Your task to perform on an android device: open app "PlayWell" (install if not already installed) Image 0: 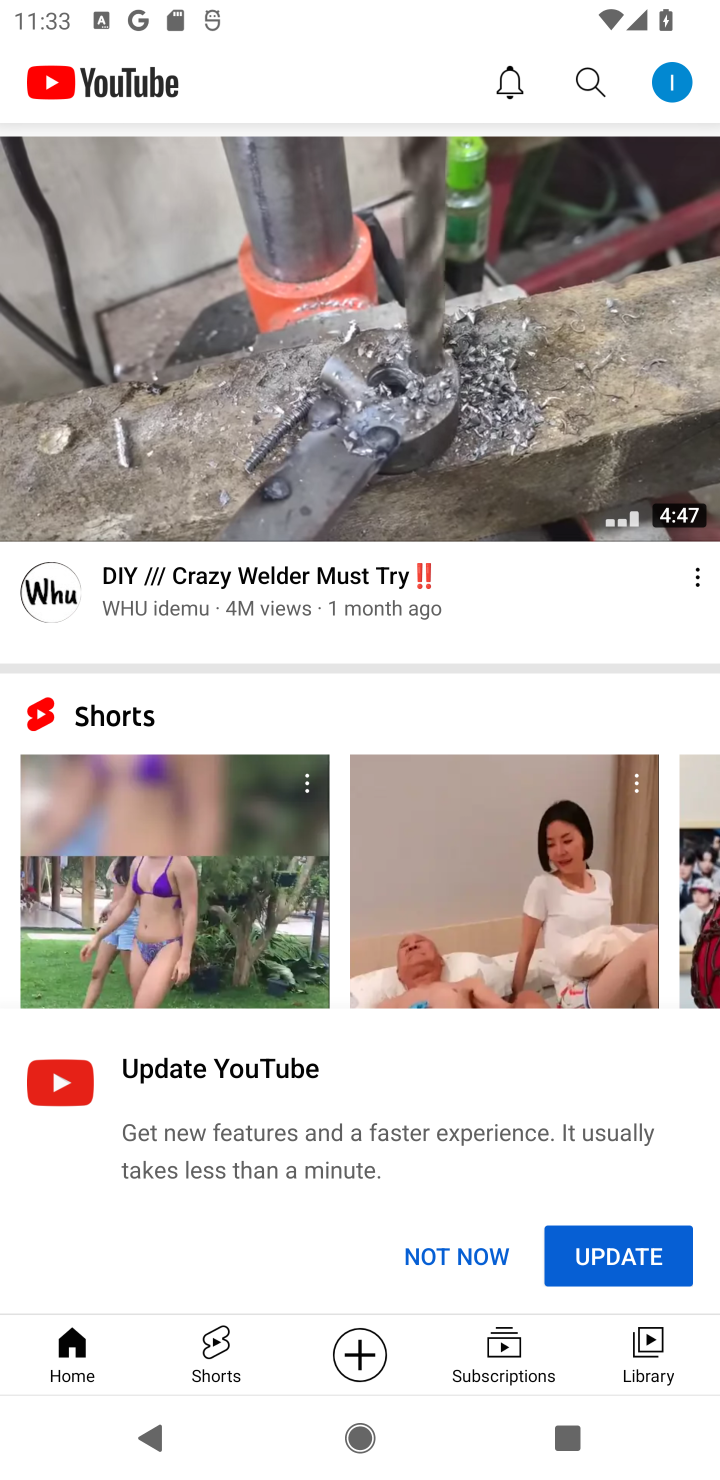
Step 0: press back button
Your task to perform on an android device: open app "PlayWell" (install if not already installed) Image 1: 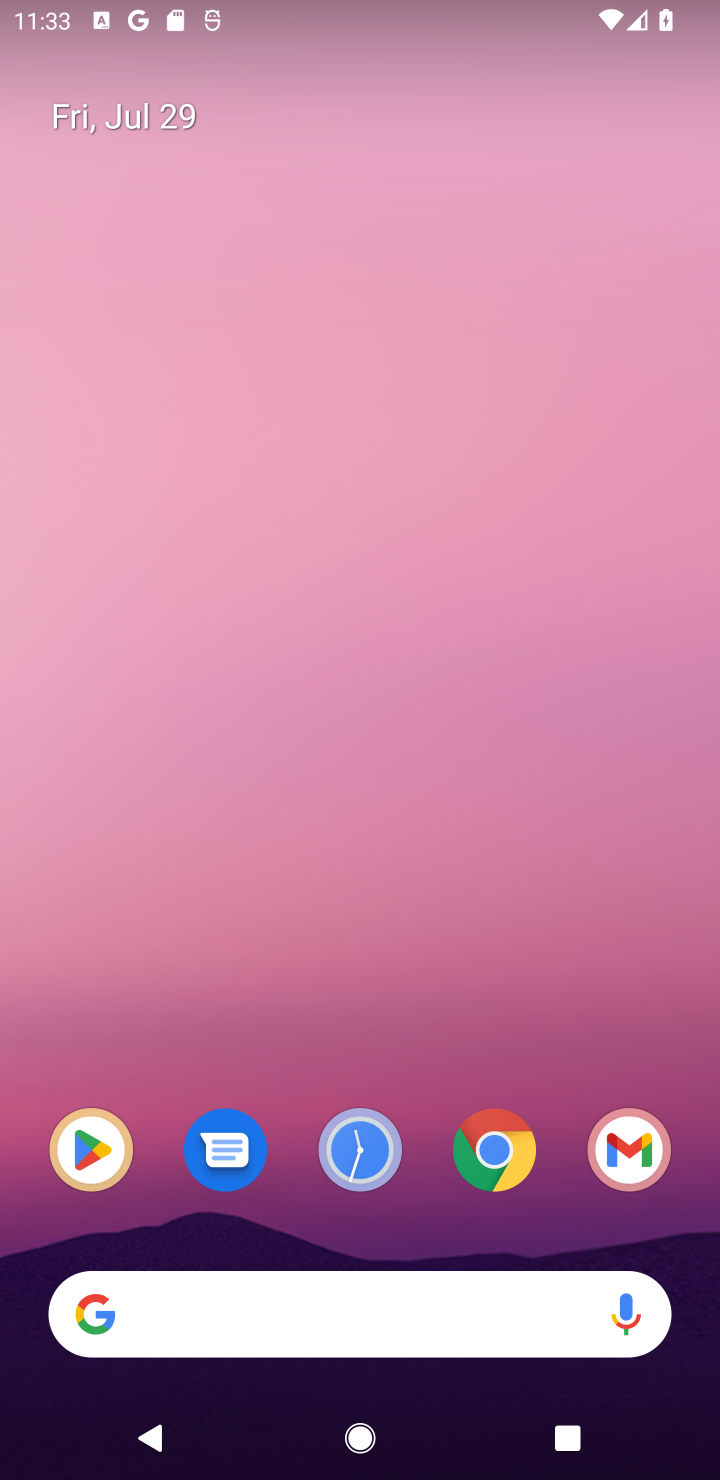
Step 1: click (110, 1154)
Your task to perform on an android device: open app "PlayWell" (install if not already installed) Image 2: 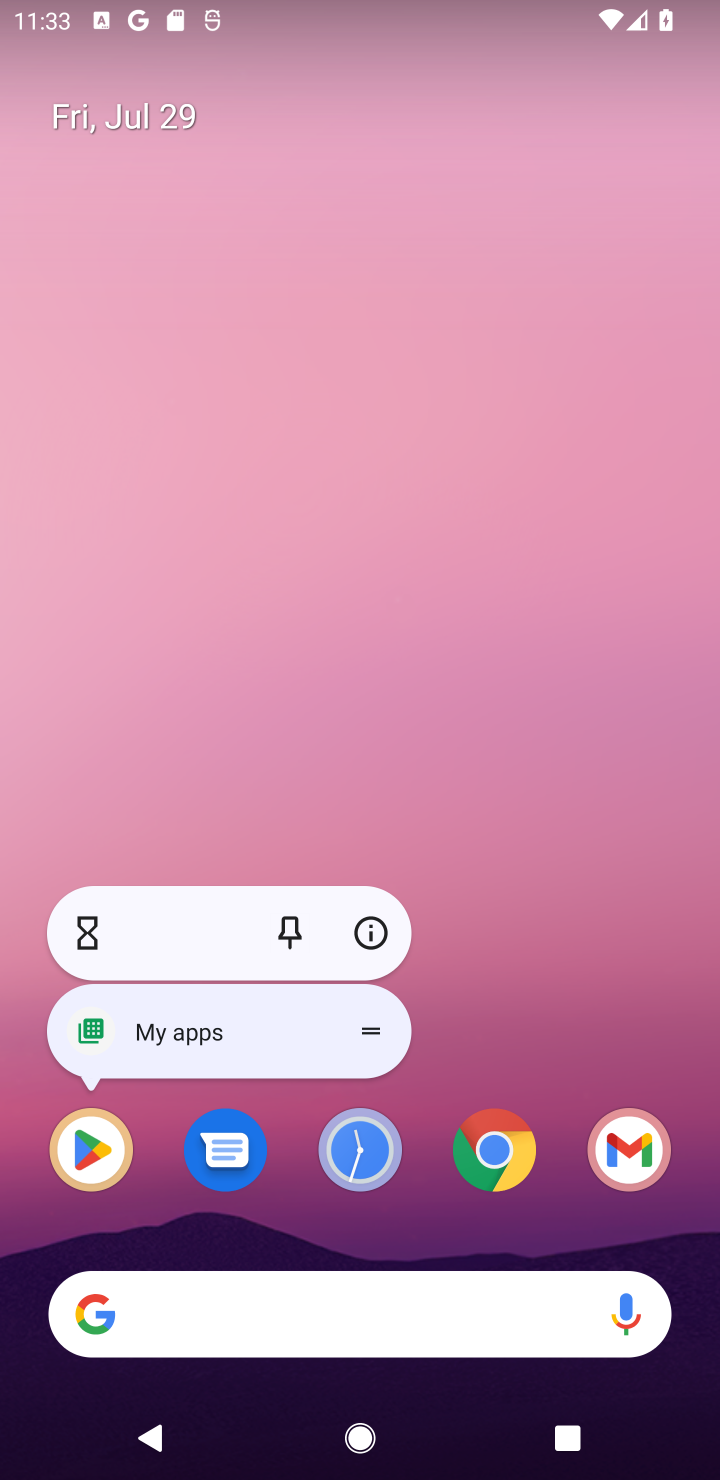
Step 2: click (134, 1174)
Your task to perform on an android device: open app "PlayWell" (install if not already installed) Image 3: 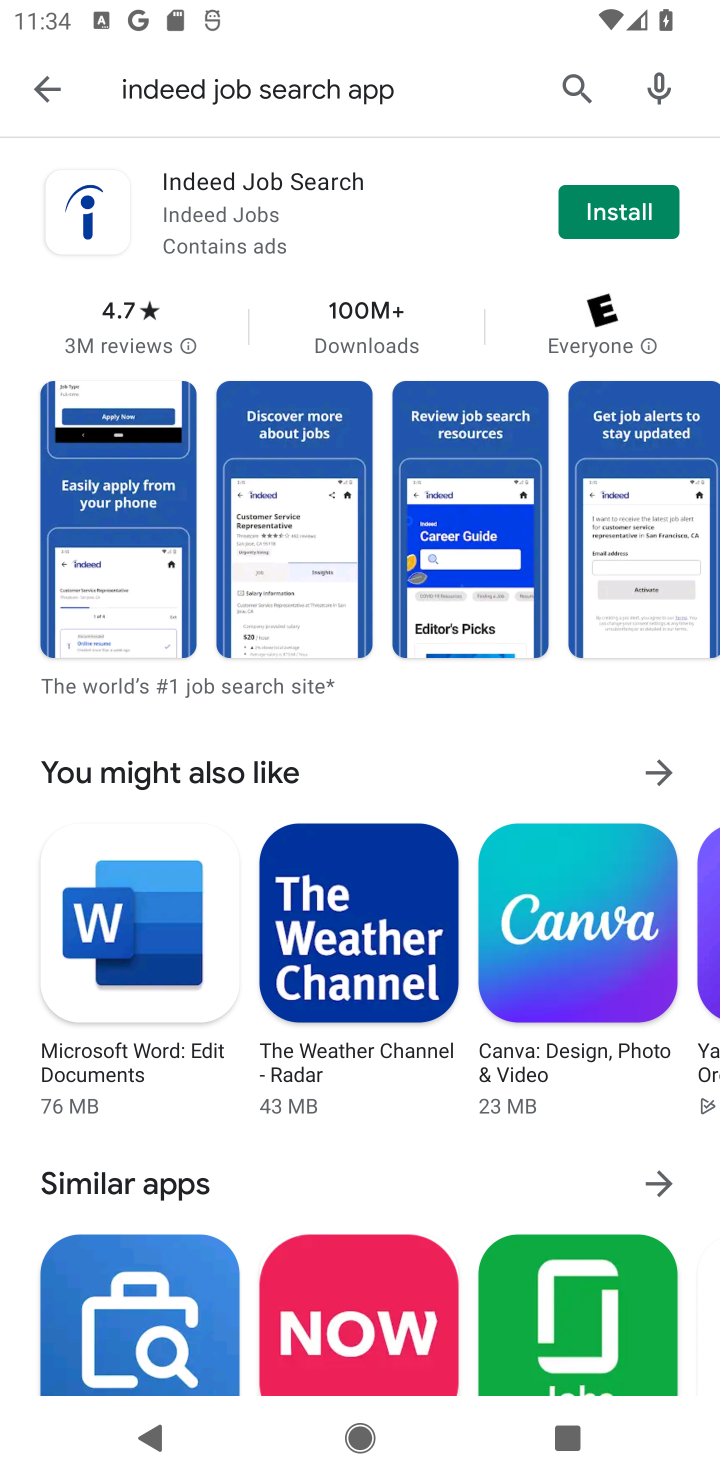
Step 3: click (578, 90)
Your task to perform on an android device: open app "PlayWell" (install if not already installed) Image 4: 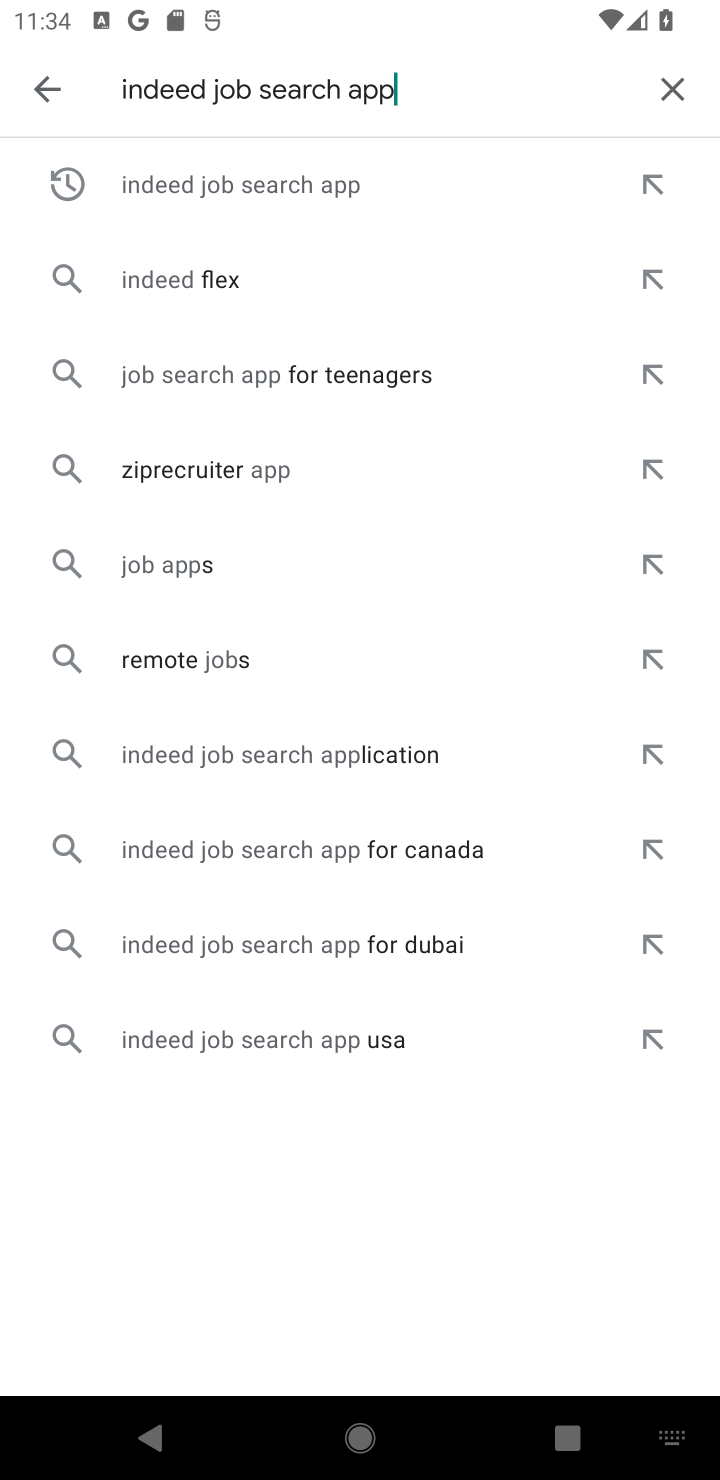
Step 4: click (675, 84)
Your task to perform on an android device: open app "PlayWell" (install if not already installed) Image 5: 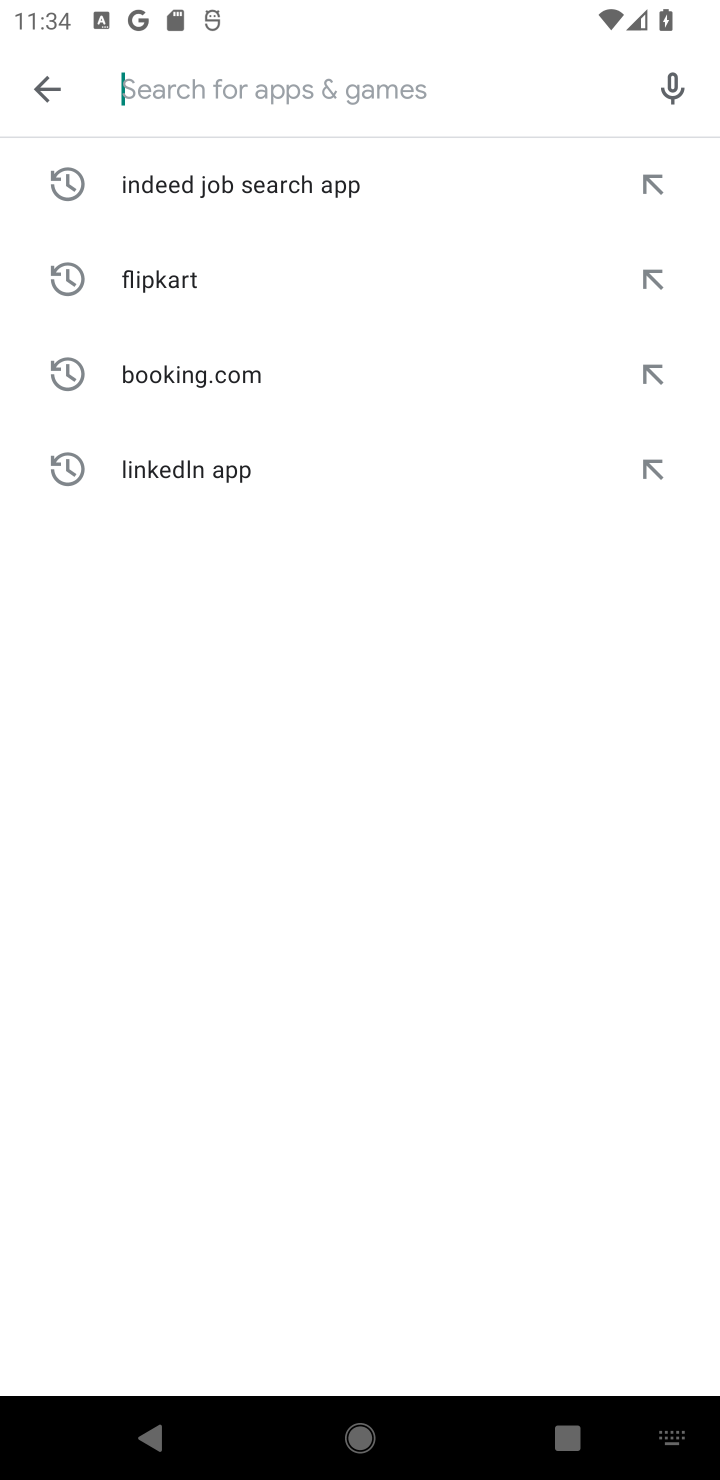
Step 5: click (400, 82)
Your task to perform on an android device: open app "PlayWell" (install if not already installed) Image 6: 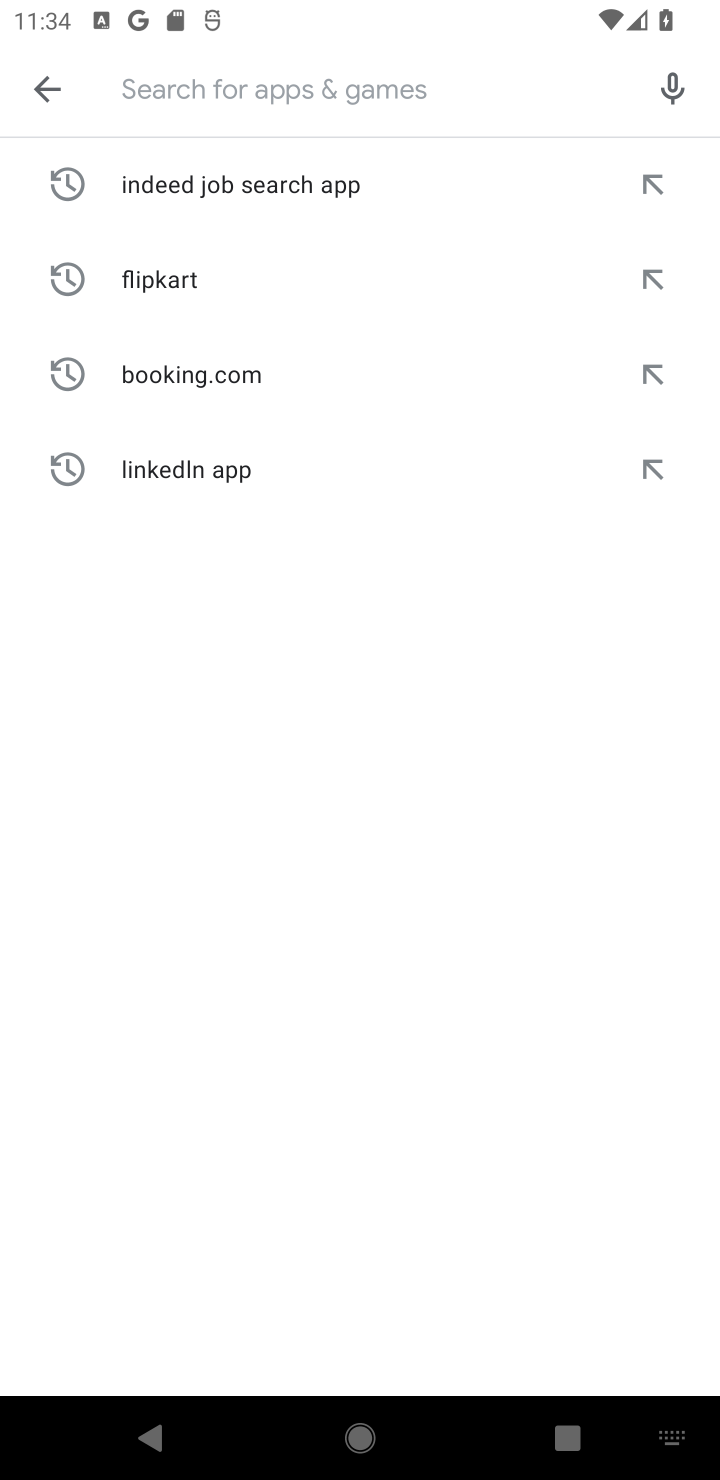
Step 6: type "play well"
Your task to perform on an android device: open app "PlayWell" (install if not already installed) Image 7: 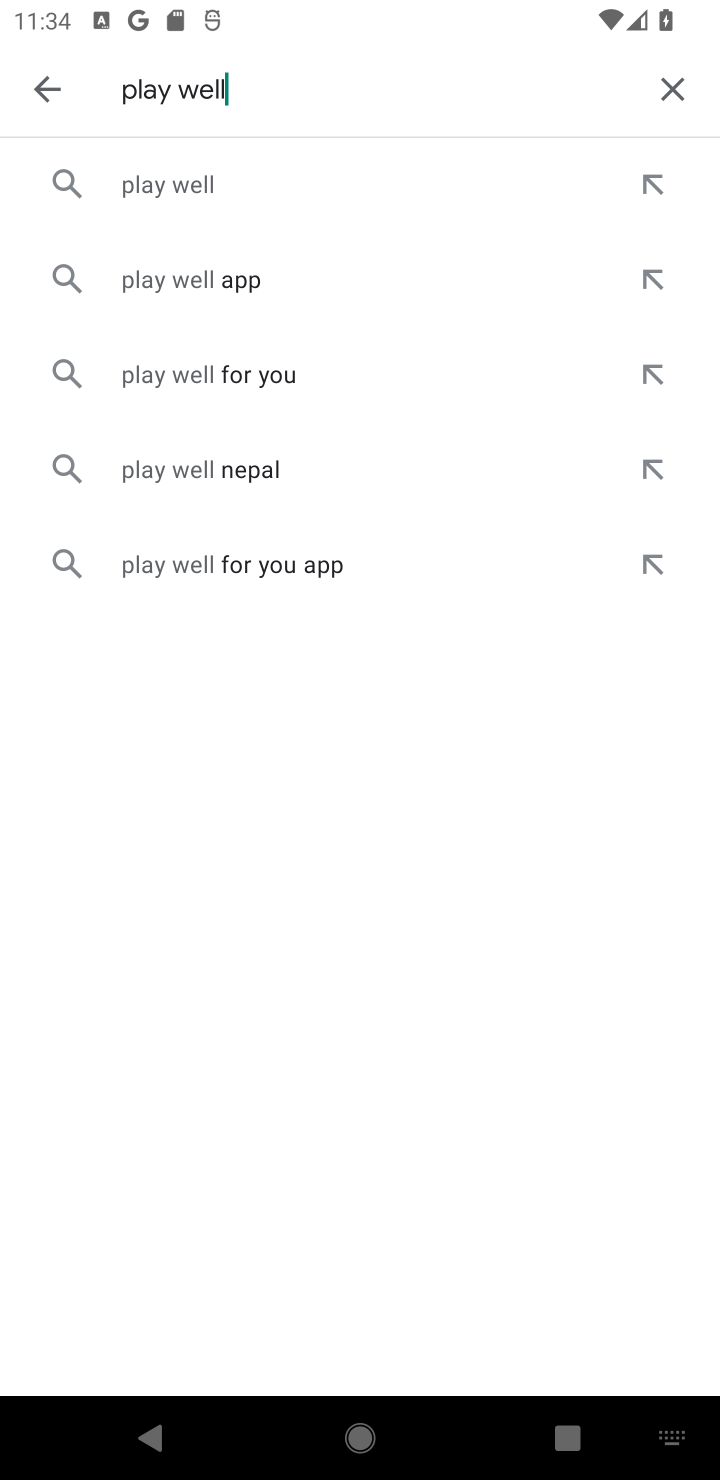
Step 7: click (215, 190)
Your task to perform on an android device: open app "PlayWell" (install if not already installed) Image 8: 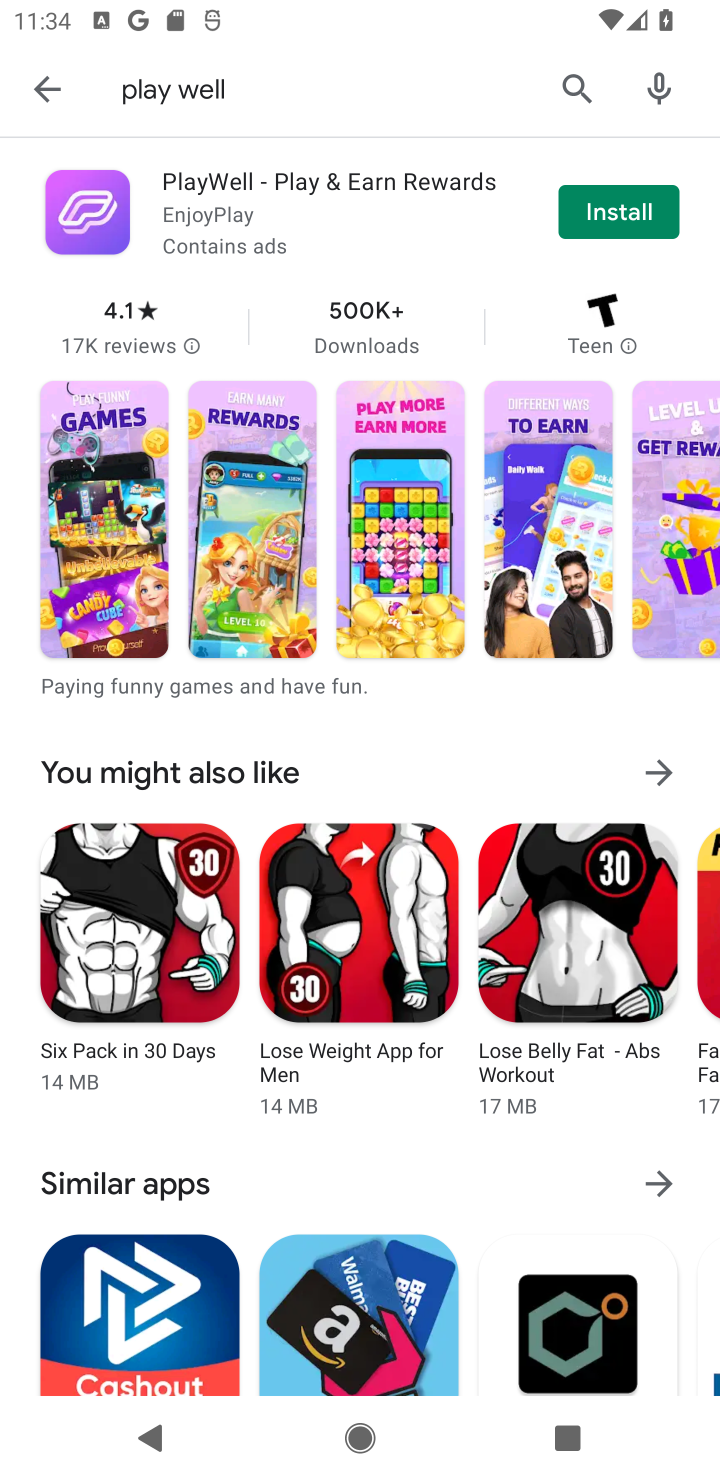
Step 8: click (619, 202)
Your task to perform on an android device: open app "PlayWell" (install if not already installed) Image 9: 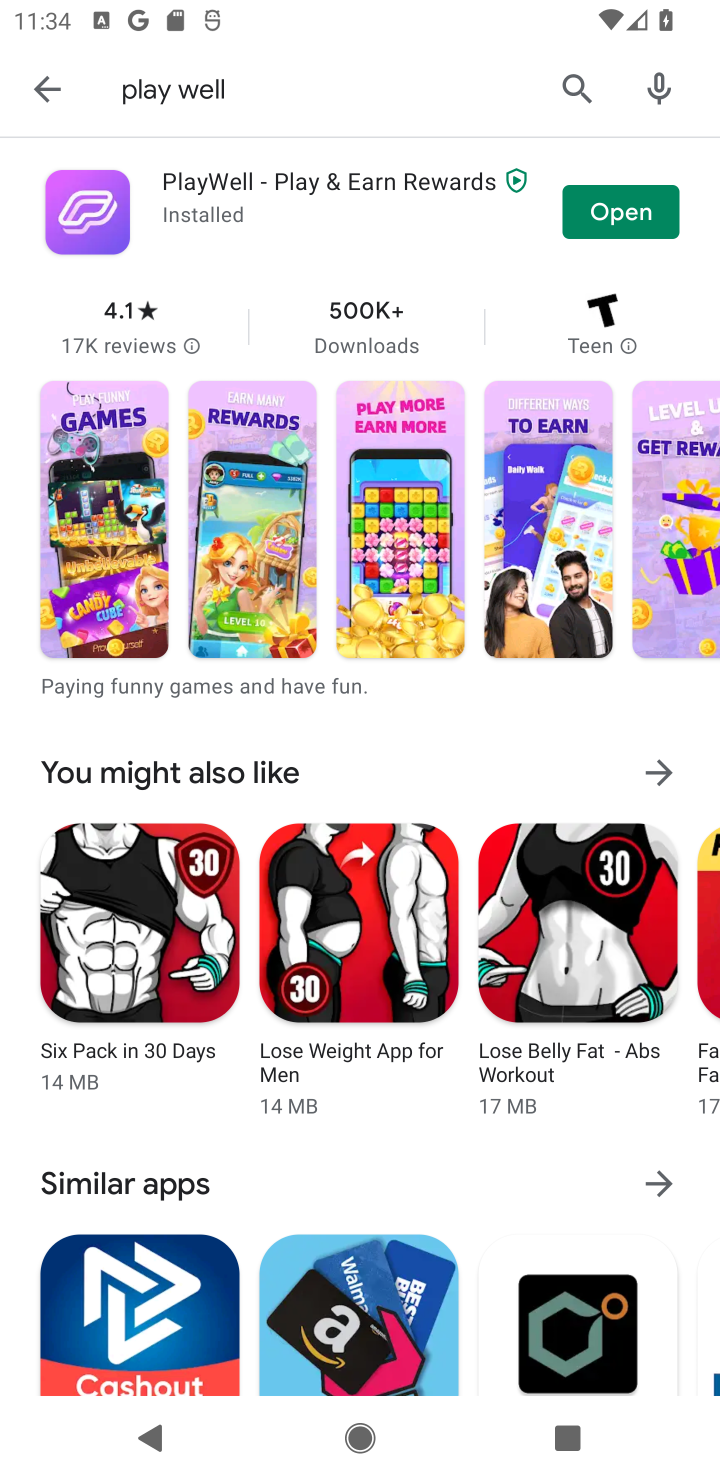
Step 9: click (621, 219)
Your task to perform on an android device: open app "PlayWell" (install if not already installed) Image 10: 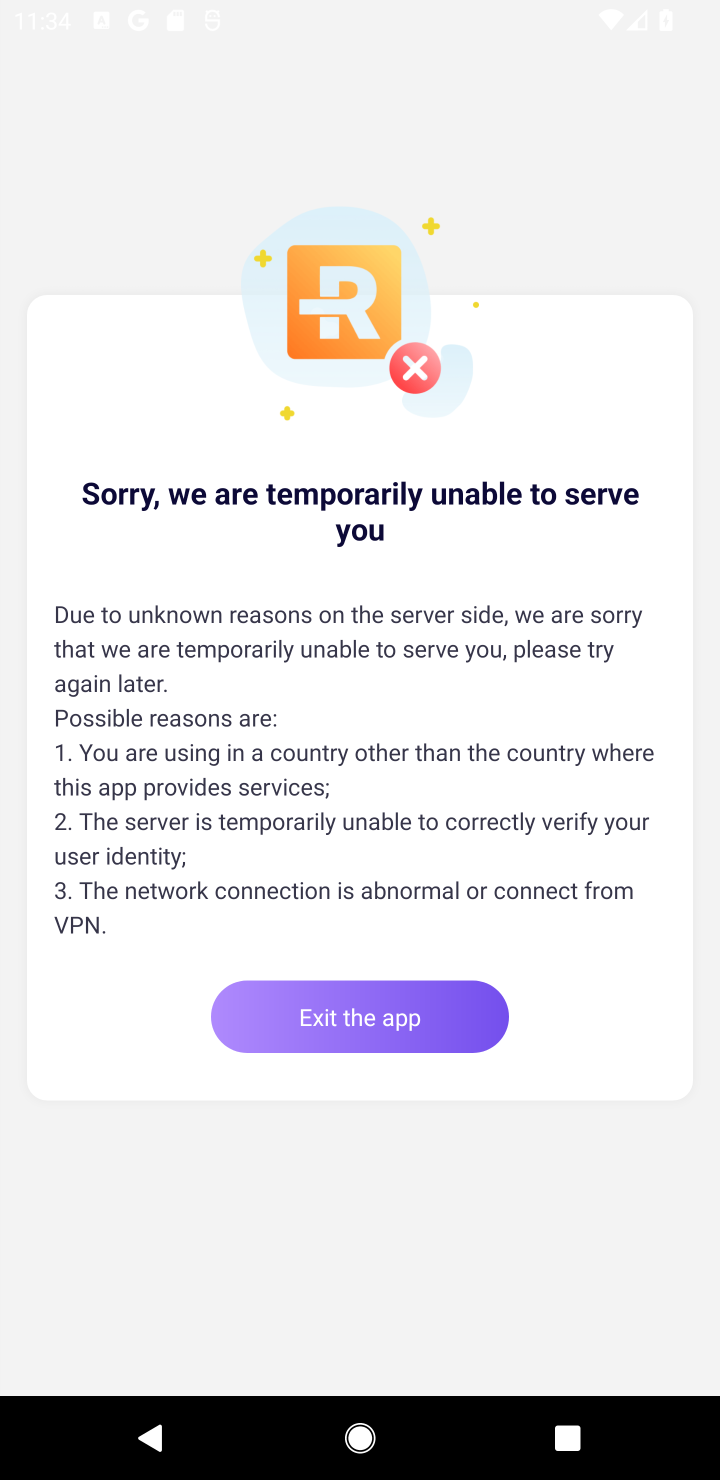
Step 10: task complete